Your task to perform on an android device: What is the recent news? Image 0: 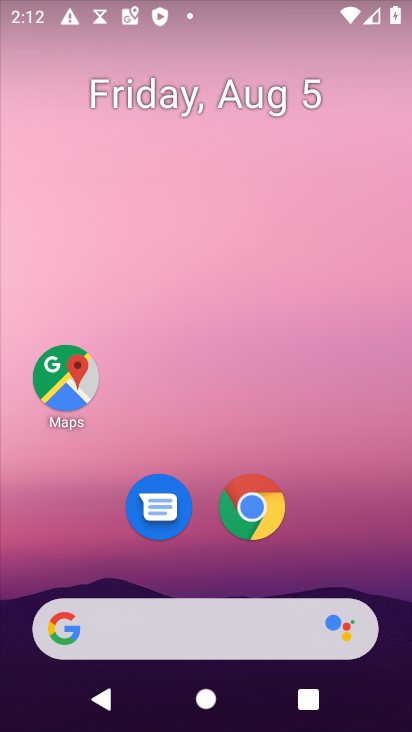
Step 0: click (186, 632)
Your task to perform on an android device: What is the recent news? Image 1: 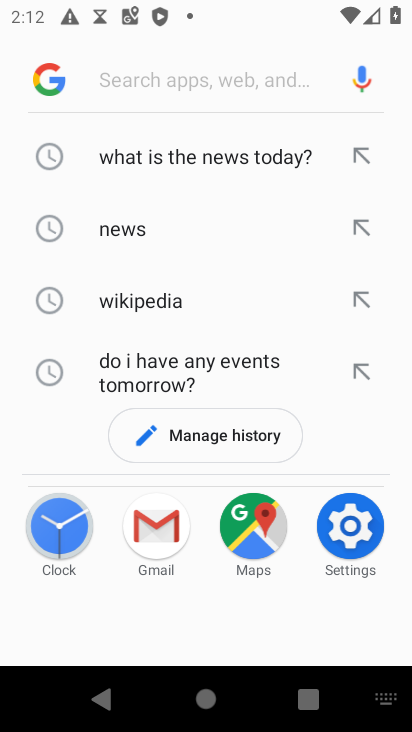
Step 1: type "what is the recent news"
Your task to perform on an android device: What is the recent news? Image 2: 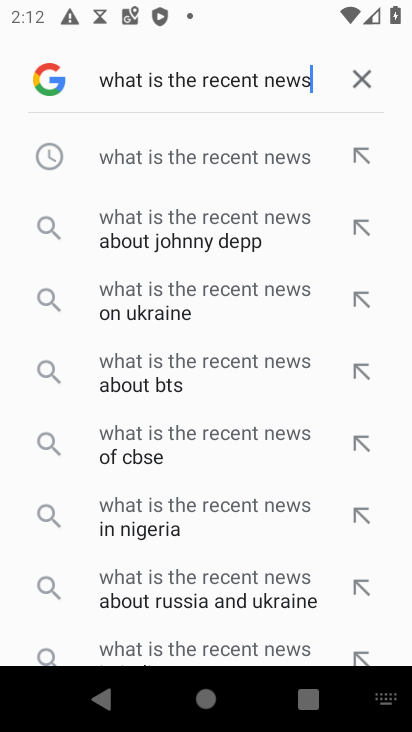
Step 2: click (164, 167)
Your task to perform on an android device: What is the recent news? Image 3: 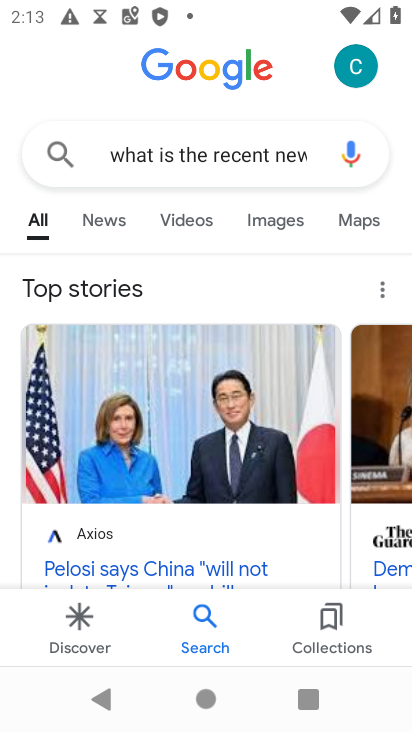
Step 3: click (103, 213)
Your task to perform on an android device: What is the recent news? Image 4: 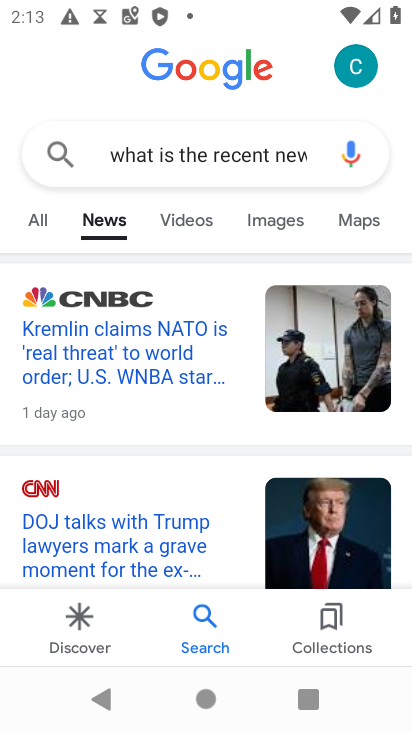
Step 4: task complete